Your task to perform on an android device: open device folders in google photos Image 0: 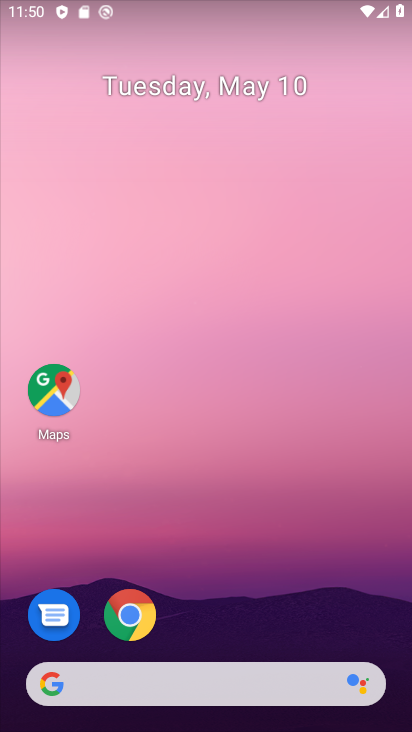
Step 0: click (233, 179)
Your task to perform on an android device: open device folders in google photos Image 1: 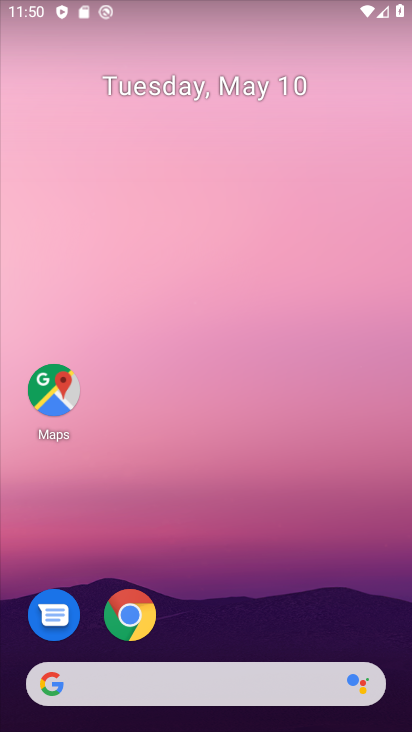
Step 1: click (239, 271)
Your task to perform on an android device: open device folders in google photos Image 2: 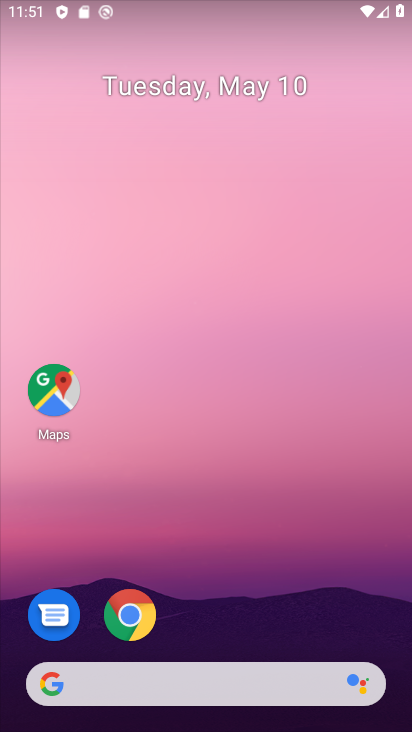
Step 2: drag from (215, 289) to (238, 215)
Your task to perform on an android device: open device folders in google photos Image 3: 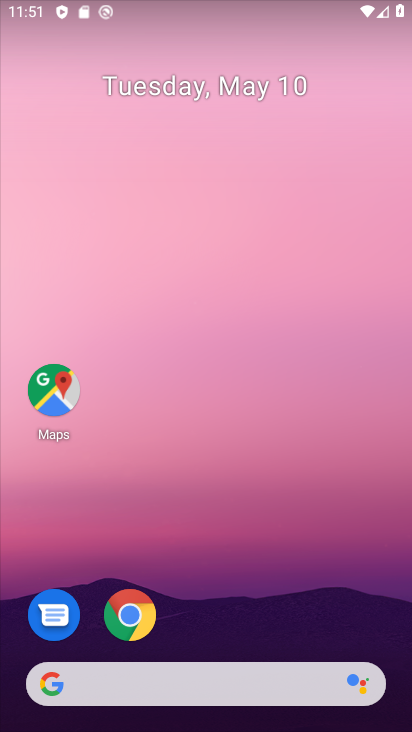
Step 3: drag from (222, 357) to (217, 92)
Your task to perform on an android device: open device folders in google photos Image 4: 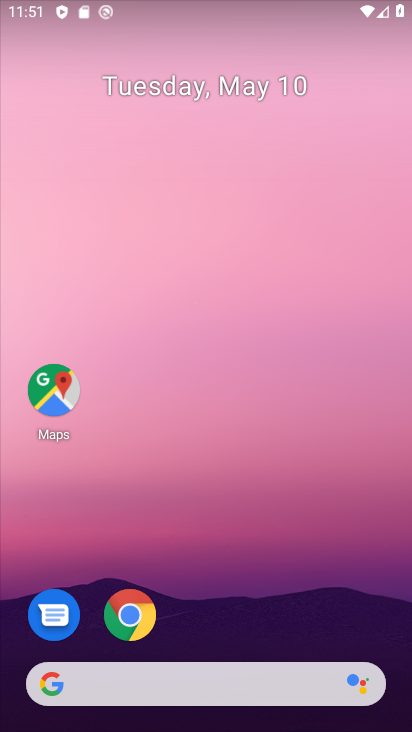
Step 4: drag from (254, 633) to (297, 12)
Your task to perform on an android device: open device folders in google photos Image 5: 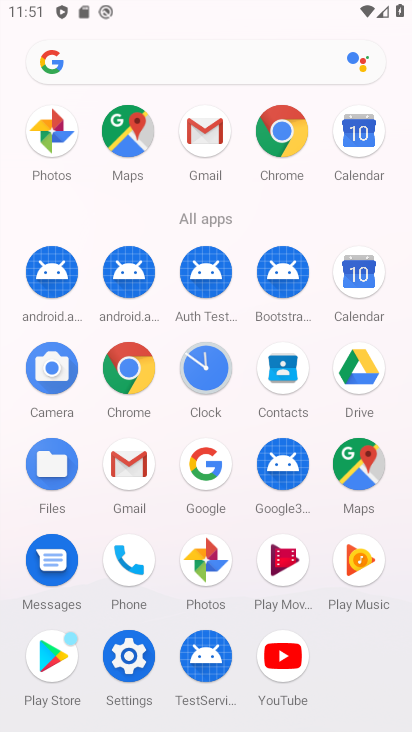
Step 5: click (210, 562)
Your task to perform on an android device: open device folders in google photos Image 6: 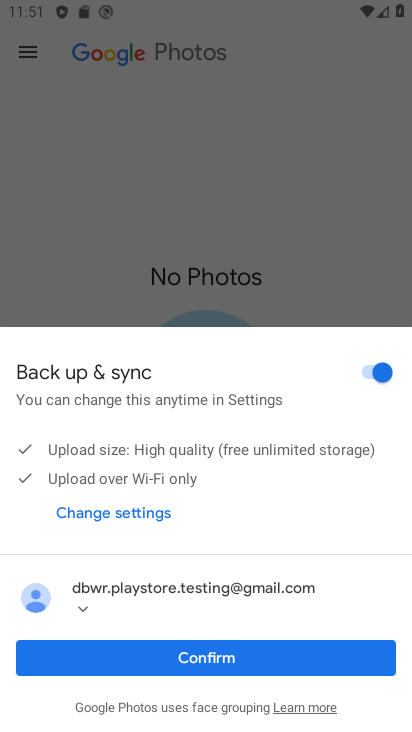
Step 6: click (197, 675)
Your task to perform on an android device: open device folders in google photos Image 7: 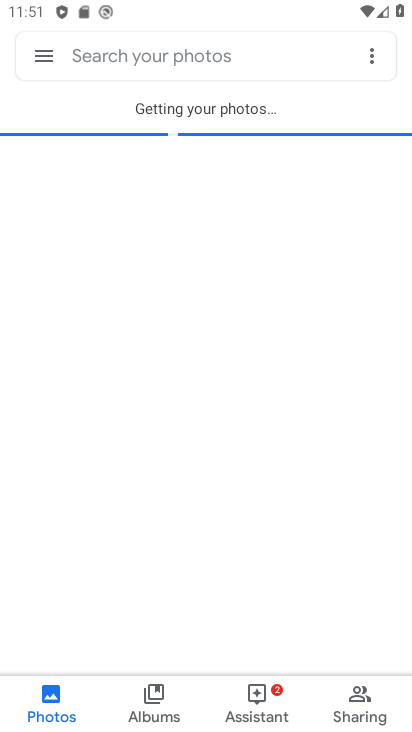
Step 7: click (40, 60)
Your task to perform on an android device: open device folders in google photos Image 8: 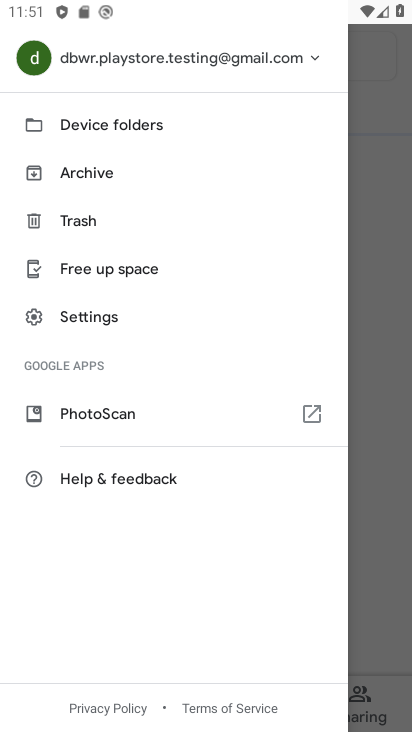
Step 8: click (126, 121)
Your task to perform on an android device: open device folders in google photos Image 9: 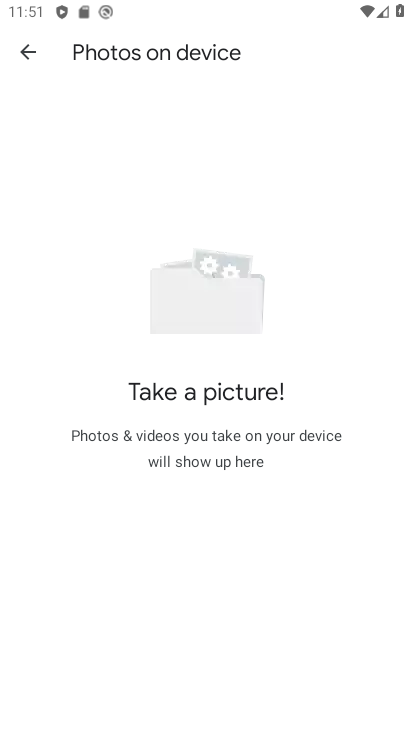
Step 9: task complete